Your task to perform on an android device: Do I have any events tomorrow? Image 0: 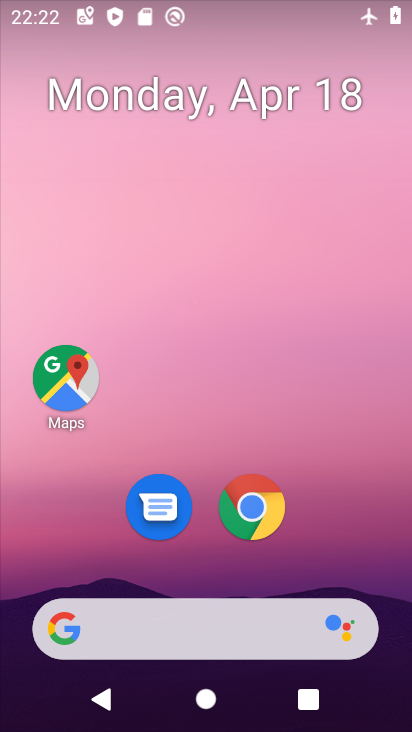
Step 0: drag from (353, 514) to (349, 98)
Your task to perform on an android device: Do I have any events tomorrow? Image 1: 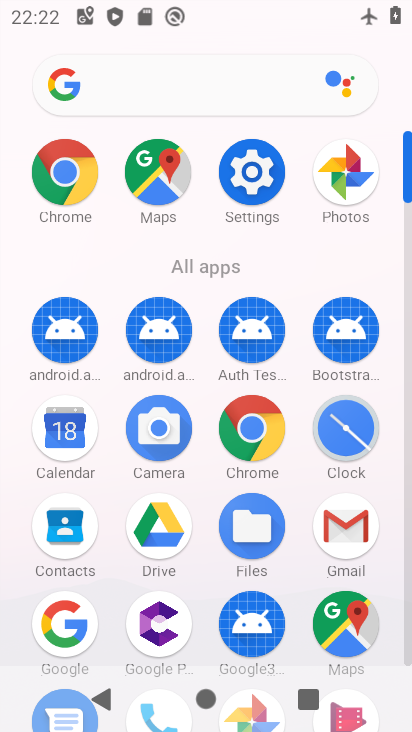
Step 1: click (67, 432)
Your task to perform on an android device: Do I have any events tomorrow? Image 2: 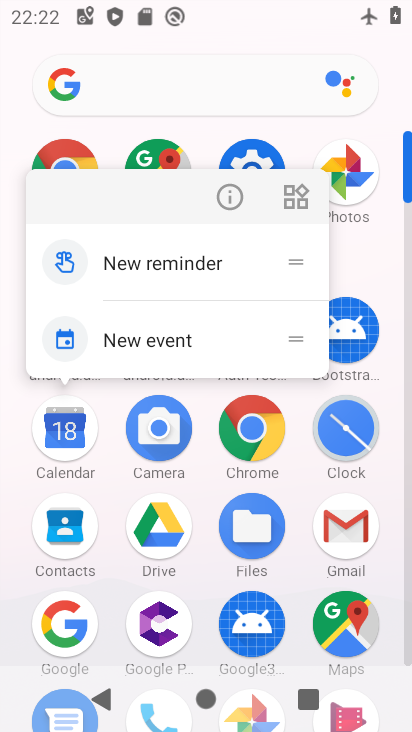
Step 2: click (67, 432)
Your task to perform on an android device: Do I have any events tomorrow? Image 3: 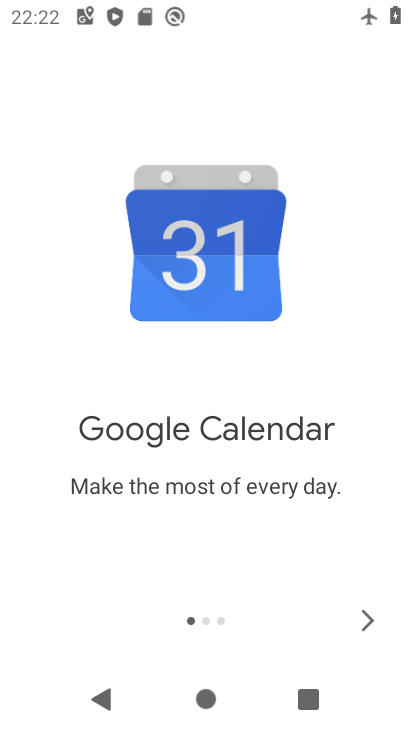
Step 3: click (365, 613)
Your task to perform on an android device: Do I have any events tomorrow? Image 4: 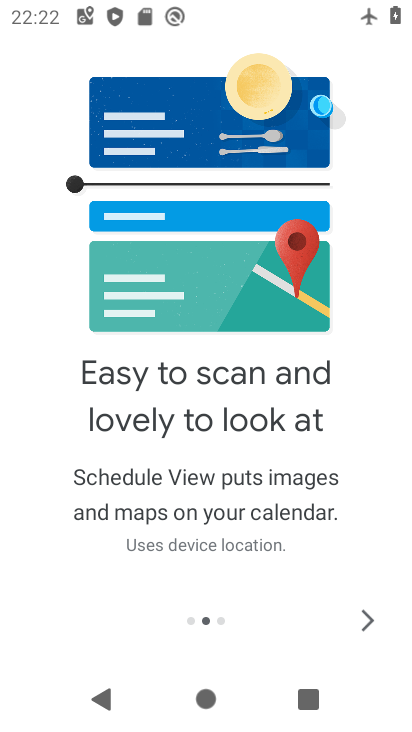
Step 4: click (365, 613)
Your task to perform on an android device: Do I have any events tomorrow? Image 5: 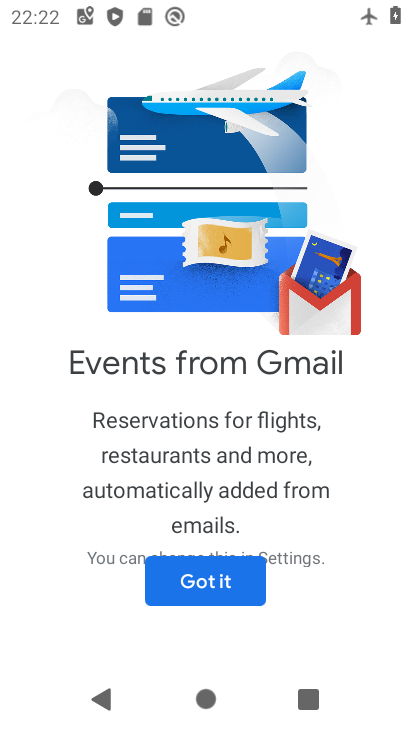
Step 5: click (242, 579)
Your task to perform on an android device: Do I have any events tomorrow? Image 6: 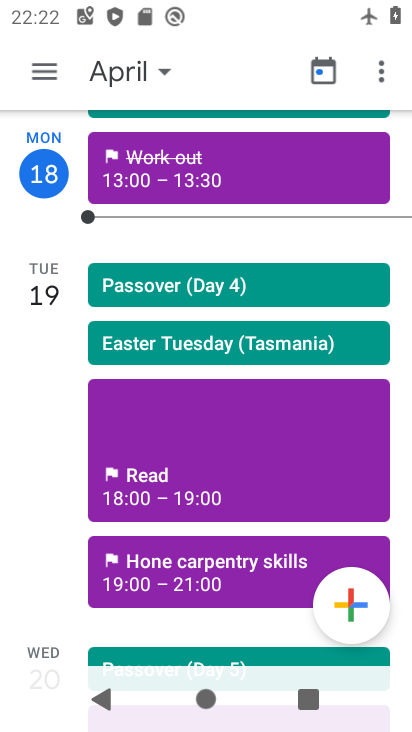
Step 6: click (273, 285)
Your task to perform on an android device: Do I have any events tomorrow? Image 7: 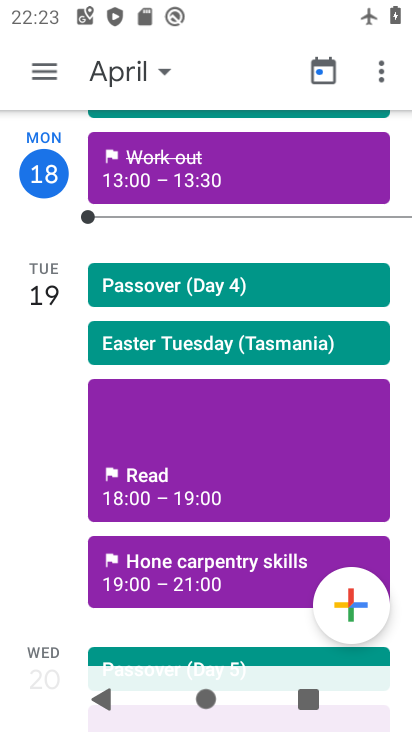
Step 7: click (262, 423)
Your task to perform on an android device: Do I have any events tomorrow? Image 8: 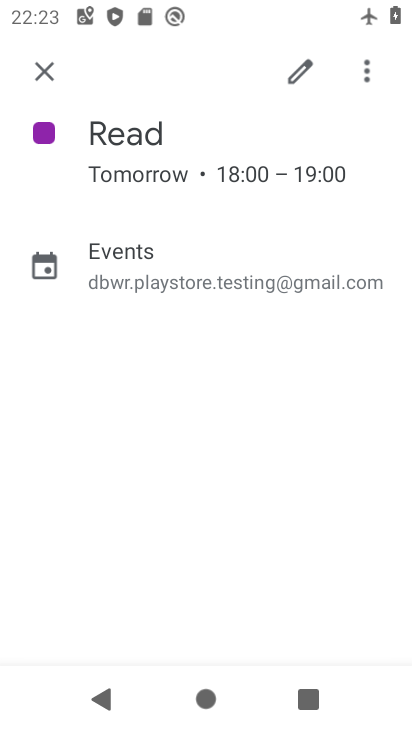
Step 8: task complete